Your task to perform on an android device: Show me productivity apps on the Play Store Image 0: 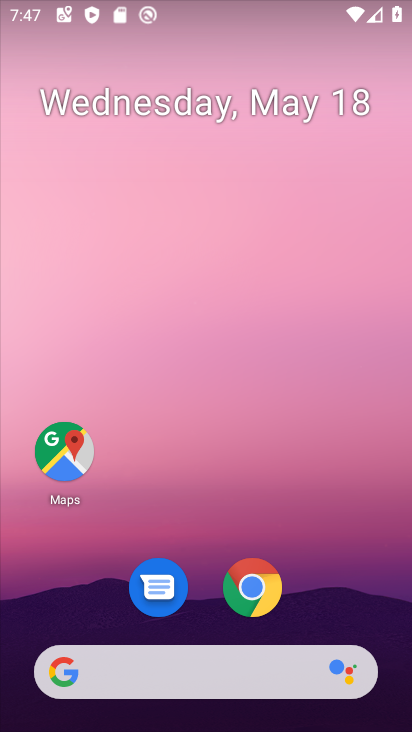
Step 0: drag from (210, 624) to (202, 168)
Your task to perform on an android device: Show me productivity apps on the Play Store Image 1: 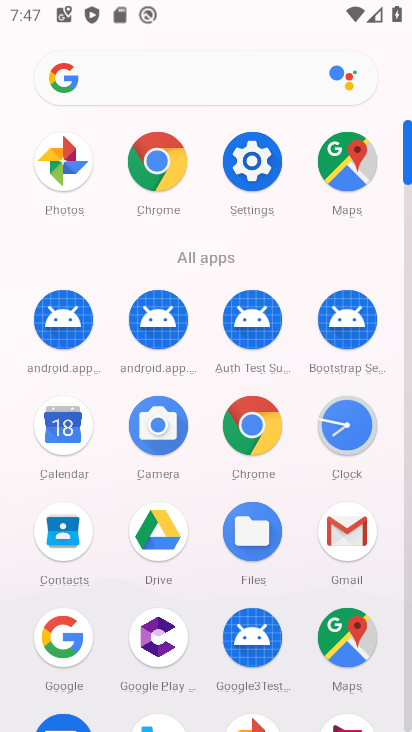
Step 1: drag from (197, 701) to (286, 105)
Your task to perform on an android device: Show me productivity apps on the Play Store Image 2: 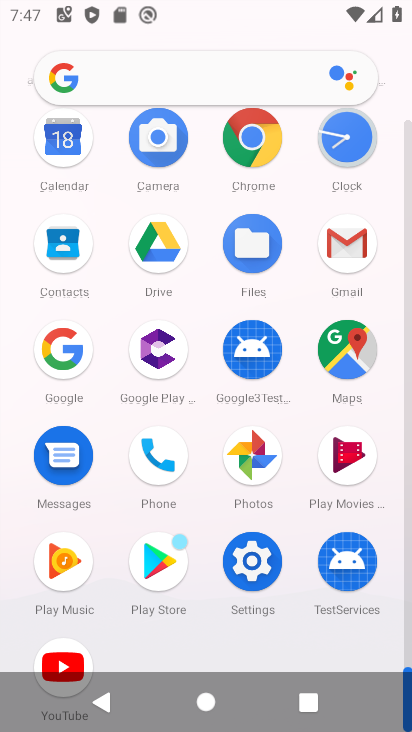
Step 2: click (171, 560)
Your task to perform on an android device: Show me productivity apps on the Play Store Image 3: 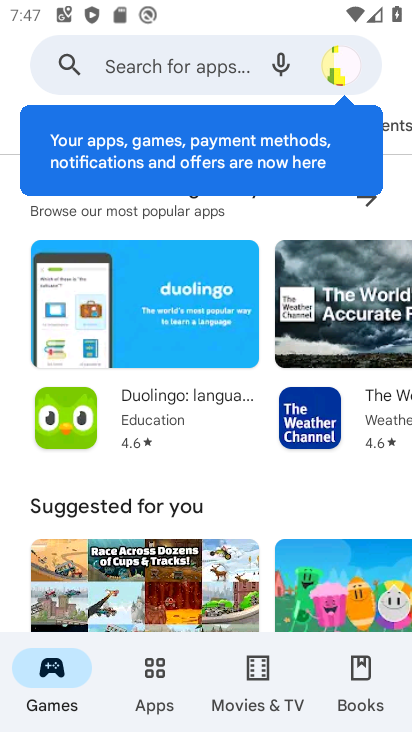
Step 3: click (151, 664)
Your task to perform on an android device: Show me productivity apps on the Play Store Image 4: 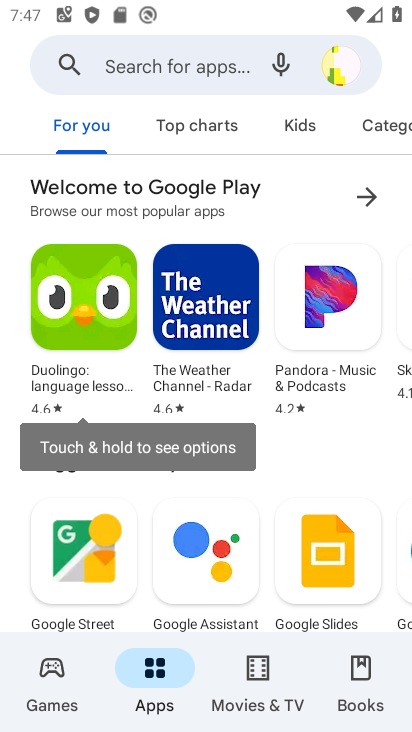
Step 4: click (385, 115)
Your task to perform on an android device: Show me productivity apps on the Play Store Image 5: 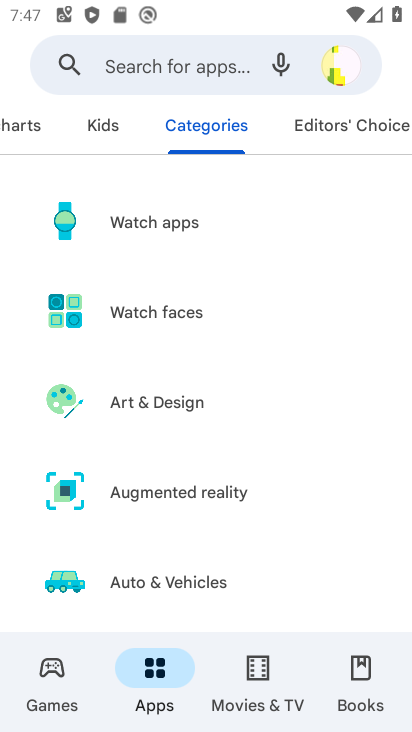
Step 5: drag from (134, 554) to (208, 186)
Your task to perform on an android device: Show me productivity apps on the Play Store Image 6: 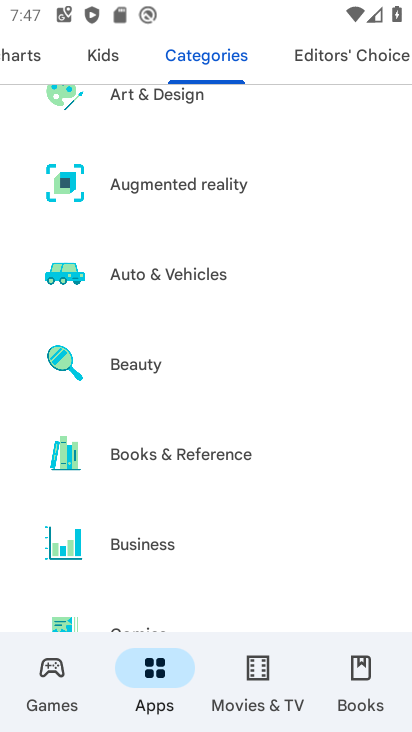
Step 6: drag from (115, 565) to (273, 74)
Your task to perform on an android device: Show me productivity apps on the Play Store Image 7: 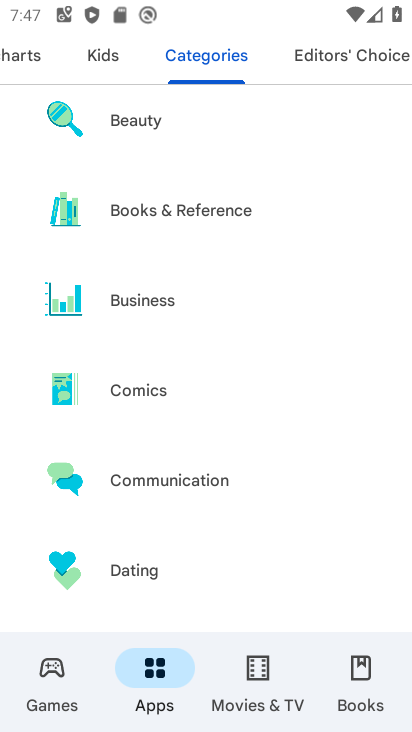
Step 7: drag from (83, 600) to (175, 126)
Your task to perform on an android device: Show me productivity apps on the Play Store Image 8: 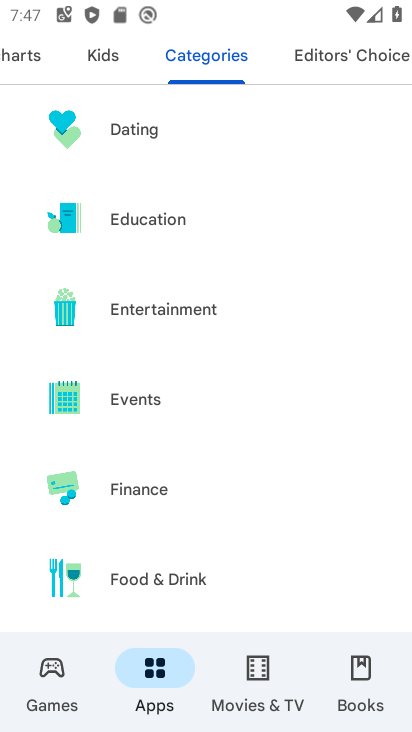
Step 8: drag from (104, 543) to (201, 88)
Your task to perform on an android device: Show me productivity apps on the Play Store Image 9: 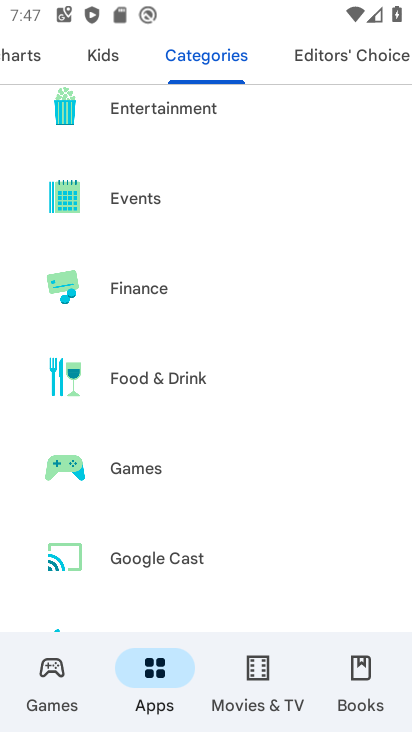
Step 9: drag from (78, 600) to (195, 132)
Your task to perform on an android device: Show me productivity apps on the Play Store Image 10: 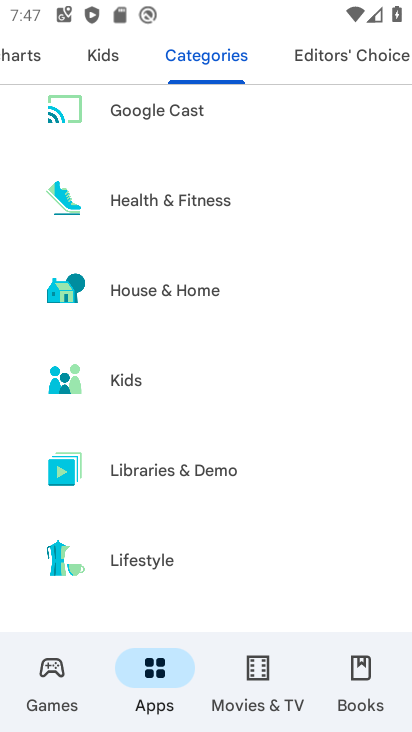
Step 10: drag from (77, 583) to (233, 128)
Your task to perform on an android device: Show me productivity apps on the Play Store Image 11: 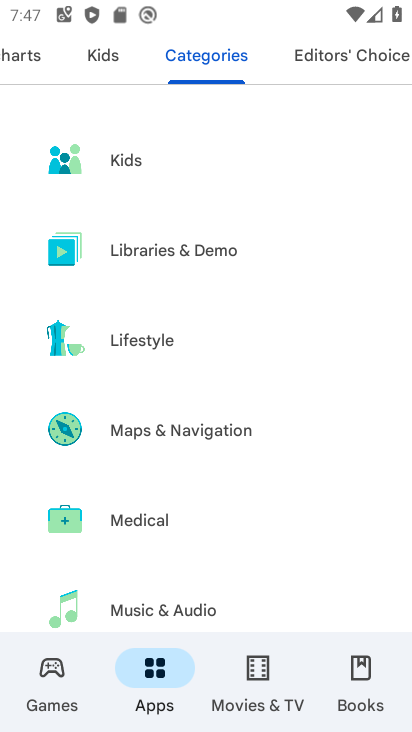
Step 11: drag from (104, 586) to (217, 104)
Your task to perform on an android device: Show me productivity apps on the Play Store Image 12: 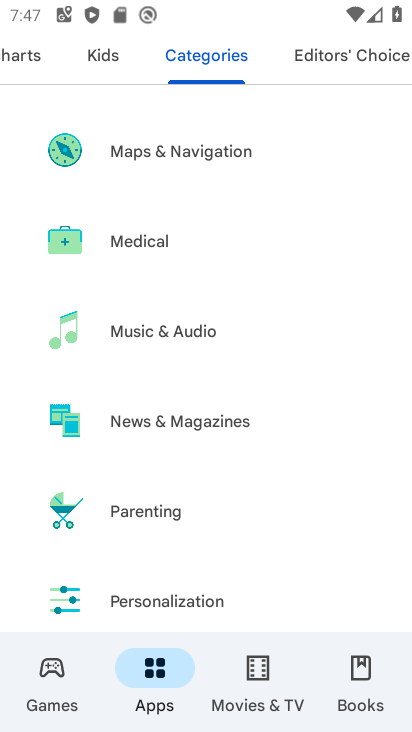
Step 12: drag from (93, 576) to (228, 157)
Your task to perform on an android device: Show me productivity apps on the Play Store Image 13: 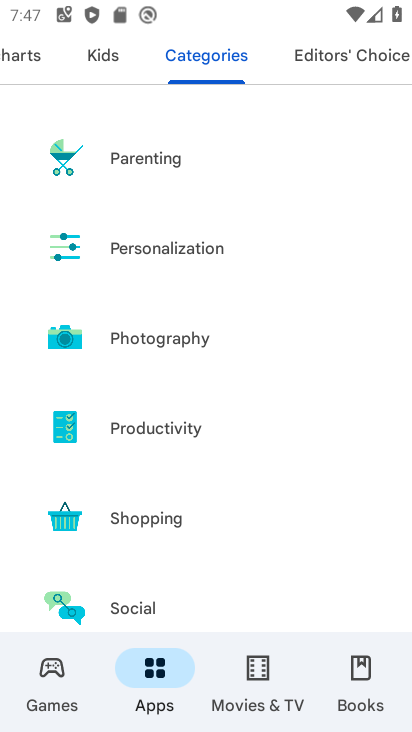
Step 13: click (102, 445)
Your task to perform on an android device: Show me productivity apps on the Play Store Image 14: 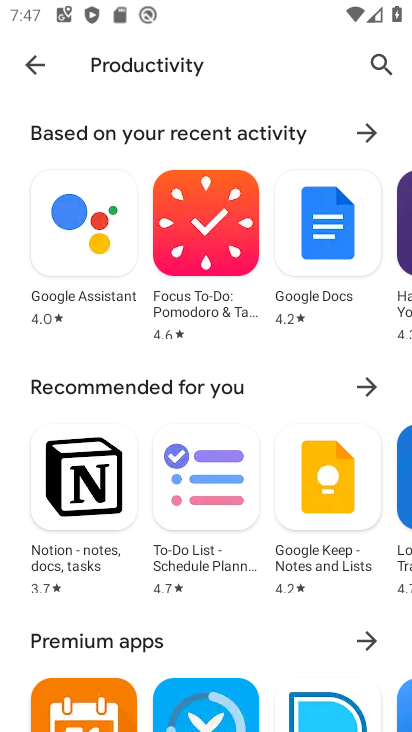
Step 14: task complete